Your task to perform on an android device: check android version Image 0: 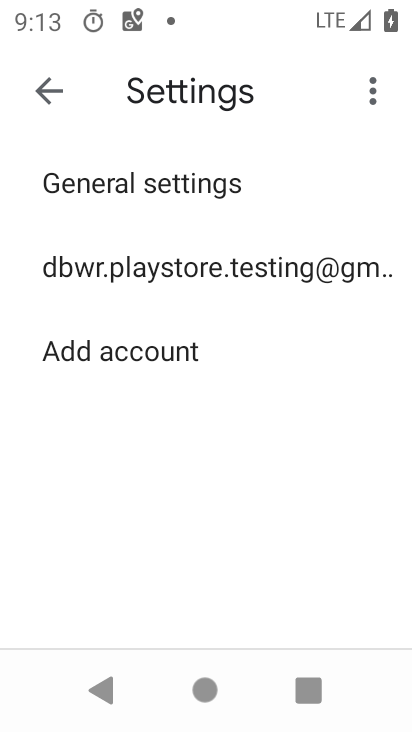
Step 0: click (322, 154)
Your task to perform on an android device: check android version Image 1: 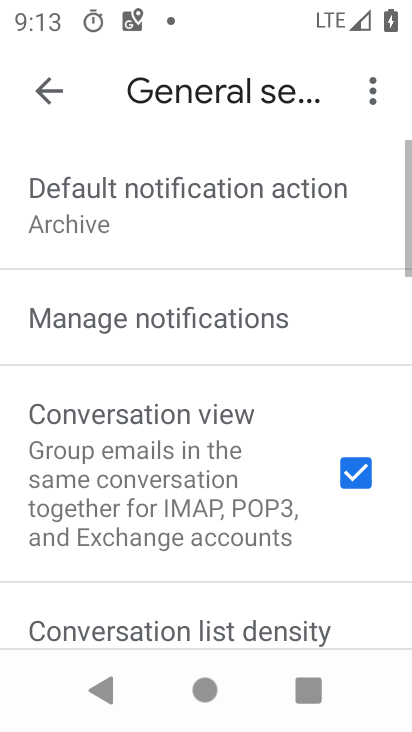
Step 1: drag from (169, 262) to (236, 30)
Your task to perform on an android device: check android version Image 2: 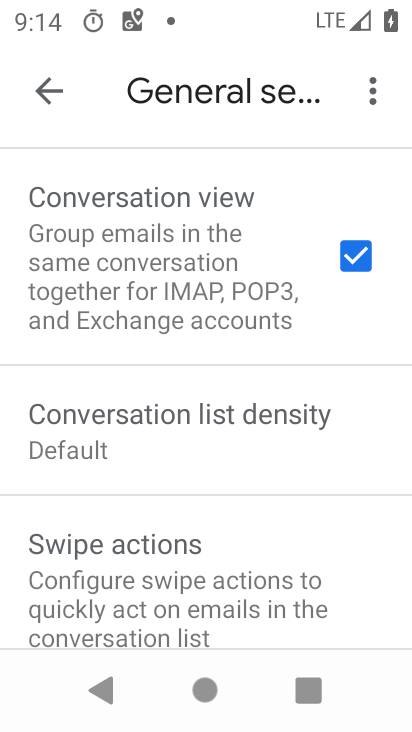
Step 2: drag from (149, 599) to (184, 130)
Your task to perform on an android device: check android version Image 3: 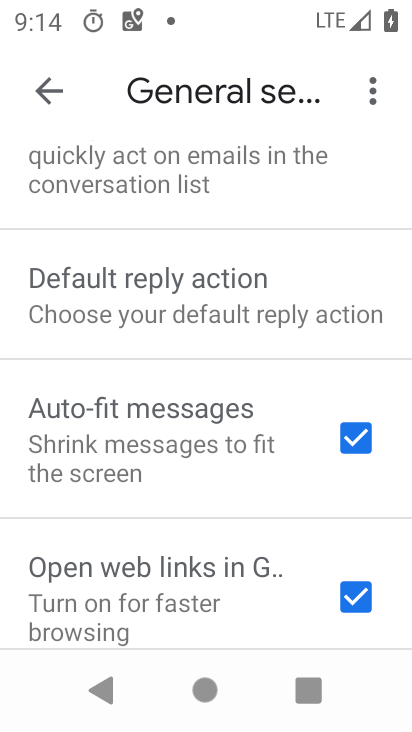
Step 3: drag from (202, 571) to (249, 232)
Your task to perform on an android device: check android version Image 4: 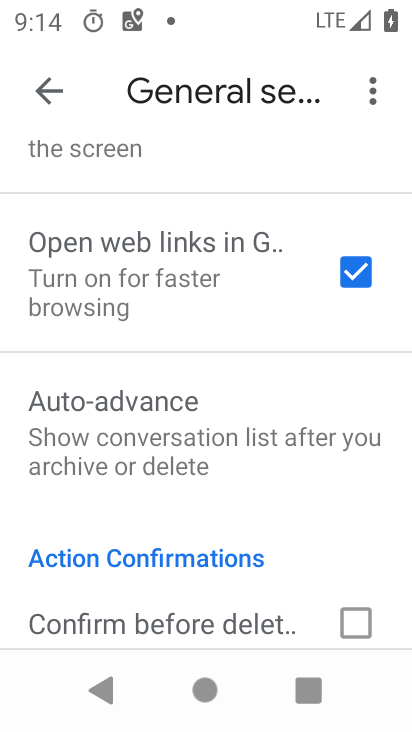
Step 4: press home button
Your task to perform on an android device: check android version Image 5: 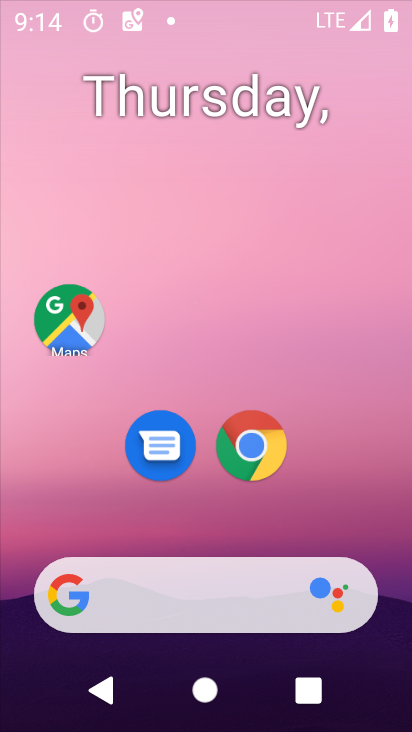
Step 5: drag from (176, 555) to (249, 148)
Your task to perform on an android device: check android version Image 6: 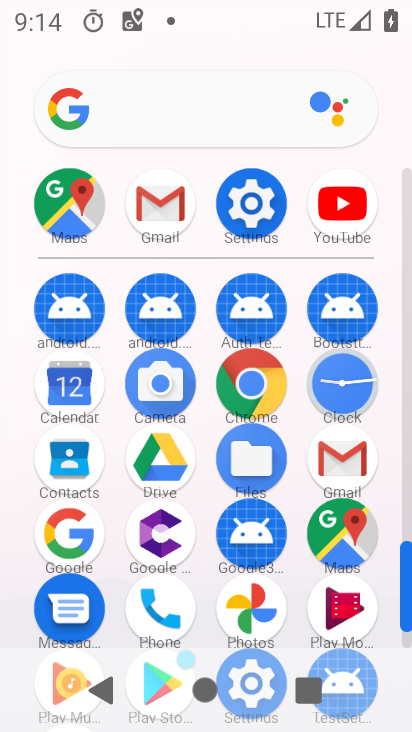
Step 6: click (229, 221)
Your task to perform on an android device: check android version Image 7: 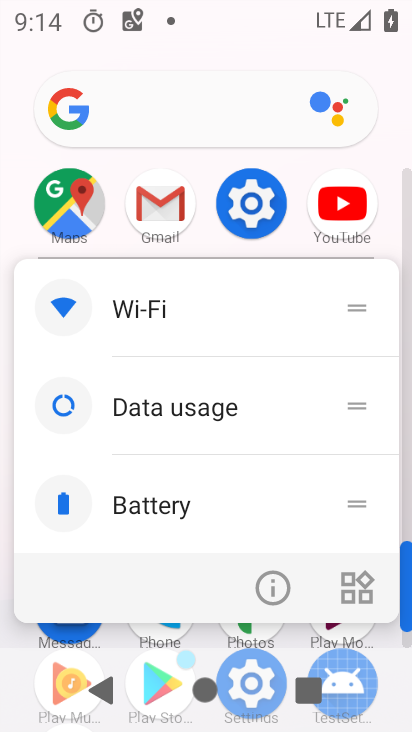
Step 7: click (298, 589)
Your task to perform on an android device: check android version Image 8: 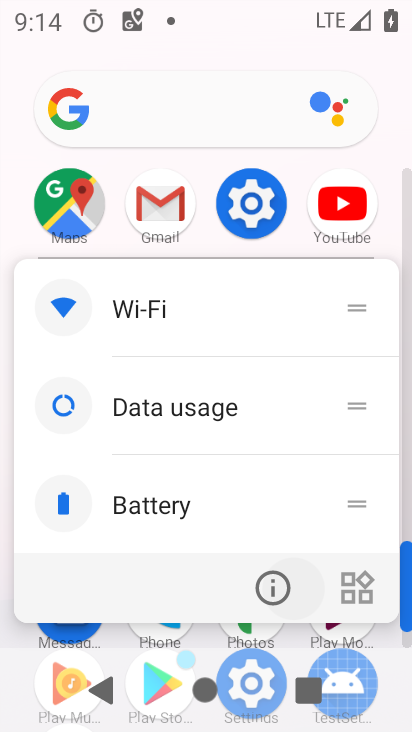
Step 8: click (298, 589)
Your task to perform on an android device: check android version Image 9: 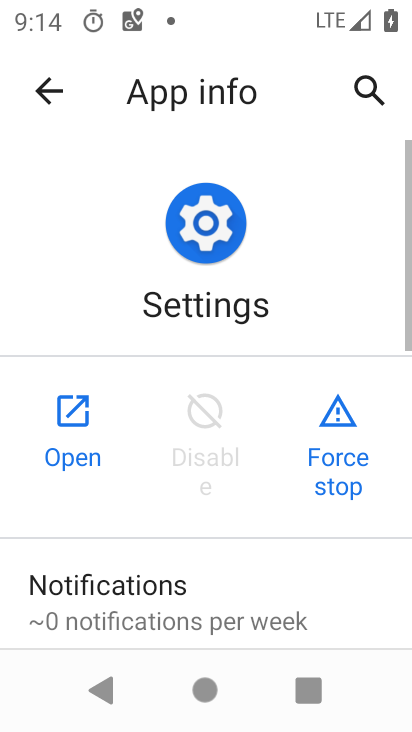
Step 9: click (48, 428)
Your task to perform on an android device: check android version Image 10: 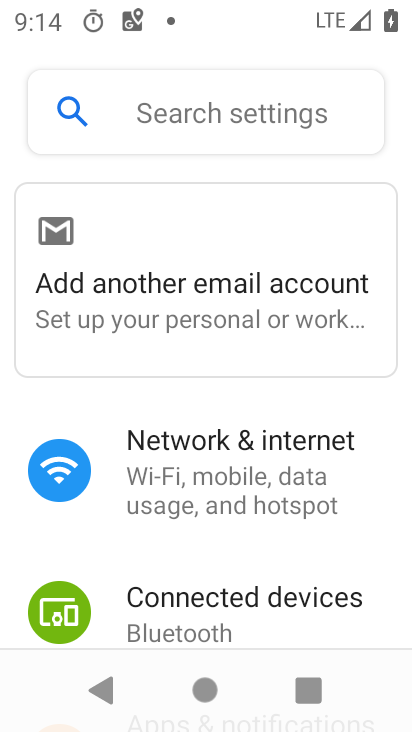
Step 10: drag from (223, 579) to (347, 23)
Your task to perform on an android device: check android version Image 11: 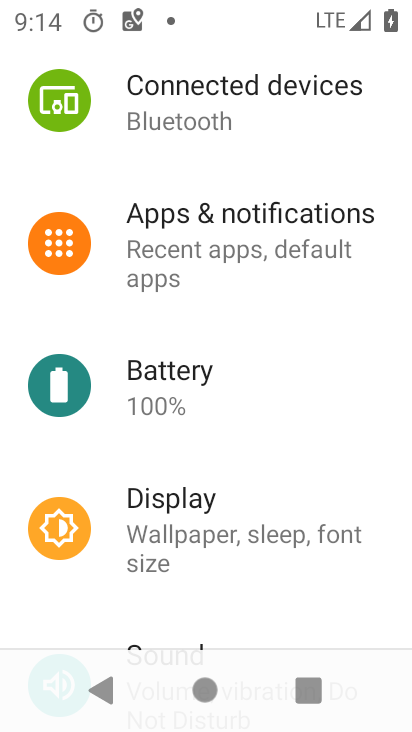
Step 11: drag from (242, 539) to (397, 2)
Your task to perform on an android device: check android version Image 12: 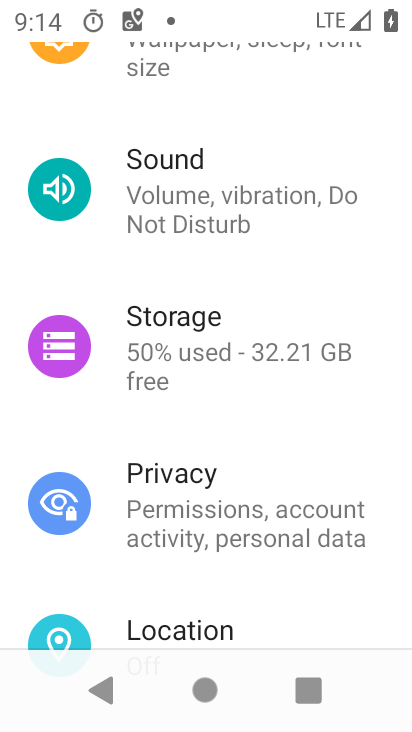
Step 12: drag from (204, 589) to (322, 58)
Your task to perform on an android device: check android version Image 13: 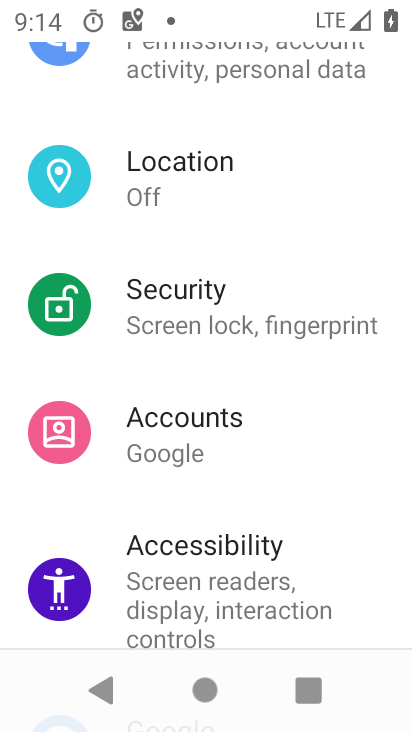
Step 13: drag from (227, 544) to (321, 78)
Your task to perform on an android device: check android version Image 14: 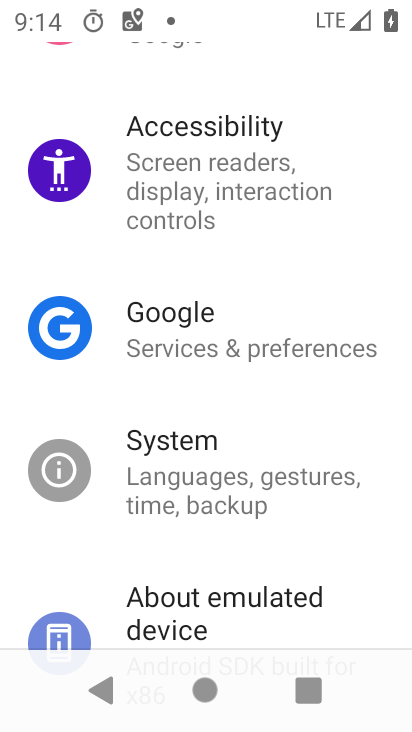
Step 14: drag from (187, 589) to (228, 272)
Your task to perform on an android device: check android version Image 15: 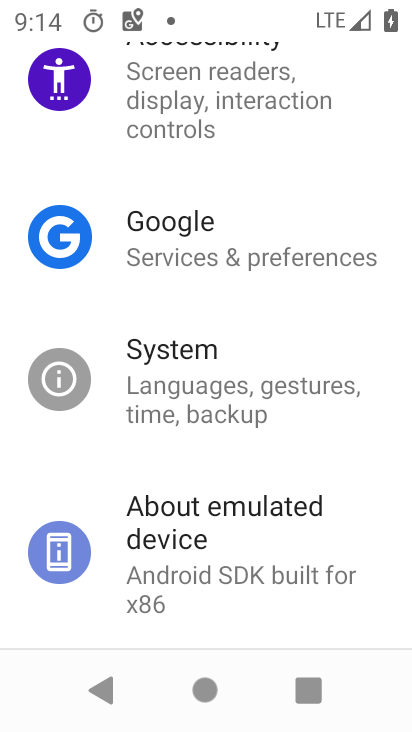
Step 15: click (208, 535)
Your task to perform on an android device: check android version Image 16: 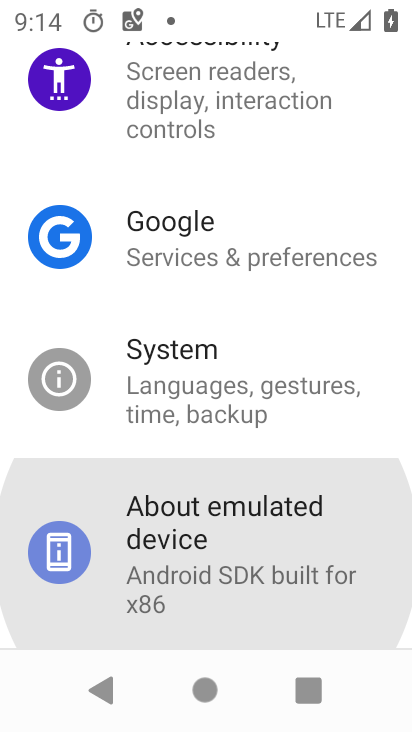
Step 16: click (208, 536)
Your task to perform on an android device: check android version Image 17: 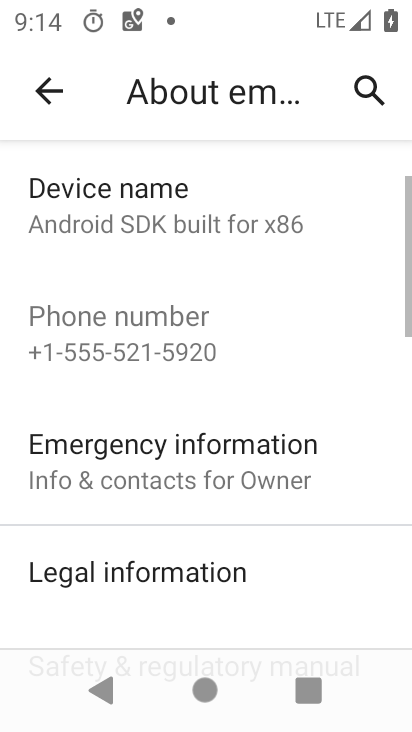
Step 17: drag from (188, 502) to (275, 162)
Your task to perform on an android device: check android version Image 18: 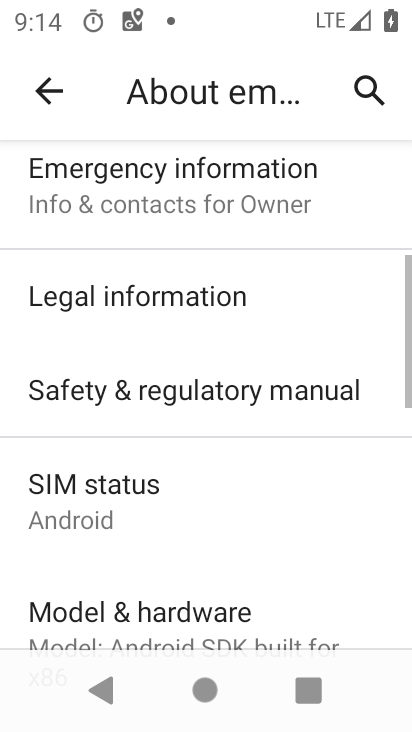
Step 18: drag from (156, 592) to (234, 195)
Your task to perform on an android device: check android version Image 19: 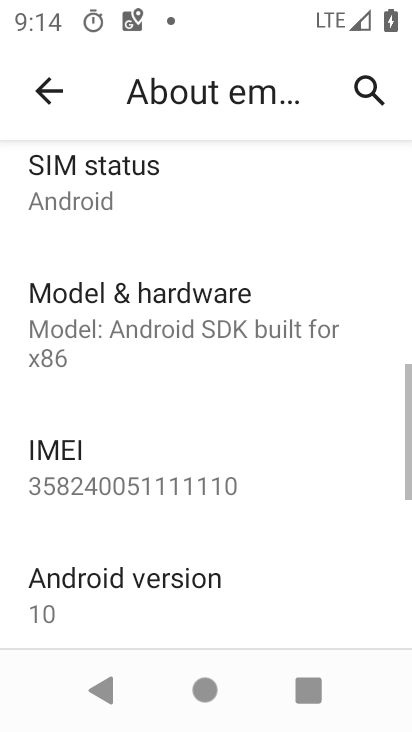
Step 19: click (152, 589)
Your task to perform on an android device: check android version Image 20: 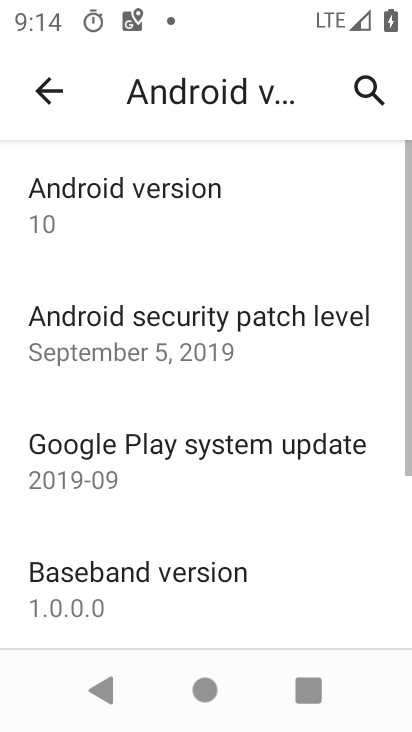
Step 20: task complete